Your task to perform on an android device: uninstall "ZOOM Cloud Meetings" Image 0: 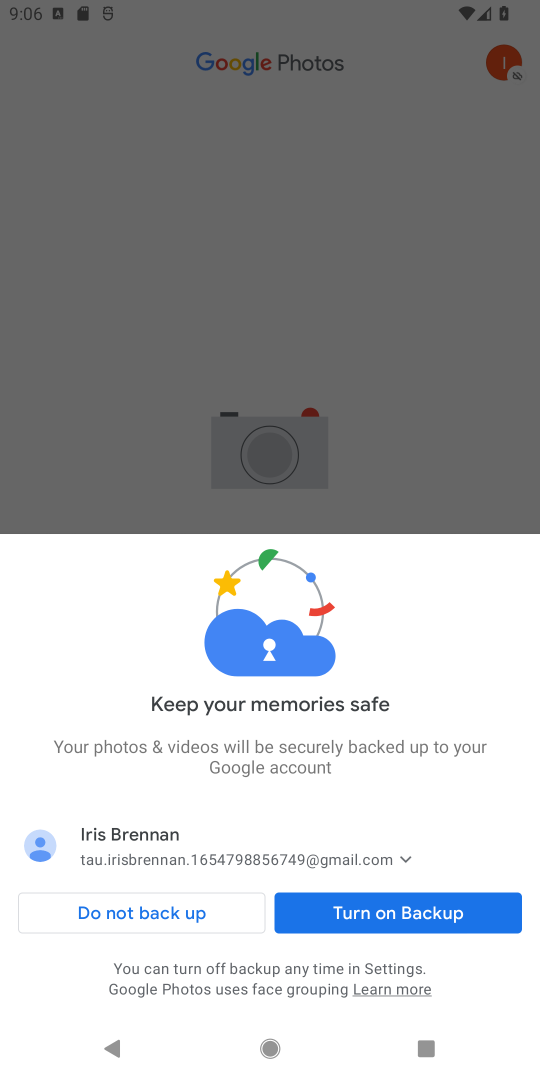
Step 0: press home button
Your task to perform on an android device: uninstall "ZOOM Cloud Meetings" Image 1: 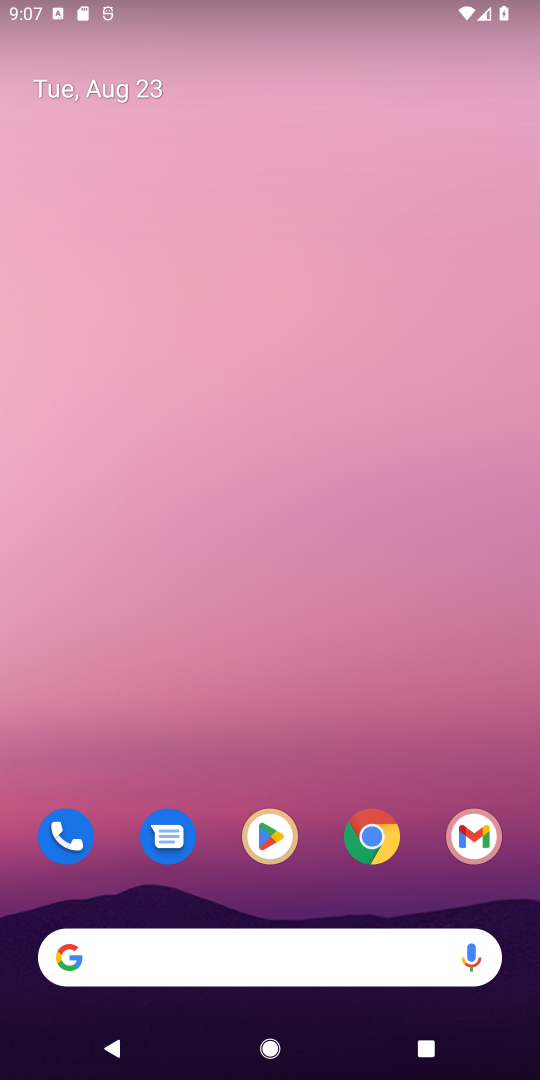
Step 1: click (275, 833)
Your task to perform on an android device: uninstall "ZOOM Cloud Meetings" Image 2: 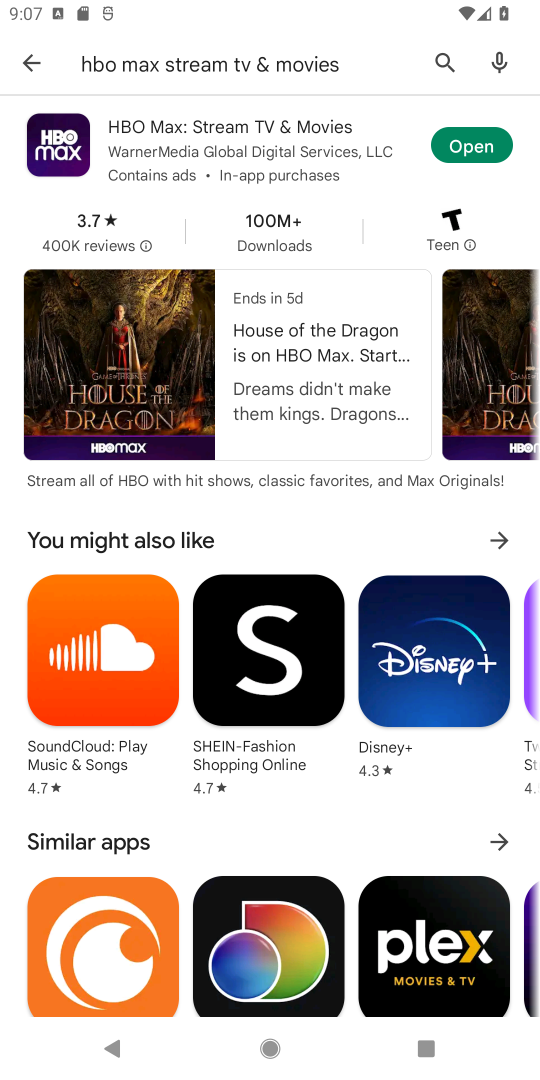
Step 2: click (445, 54)
Your task to perform on an android device: uninstall "ZOOM Cloud Meetings" Image 3: 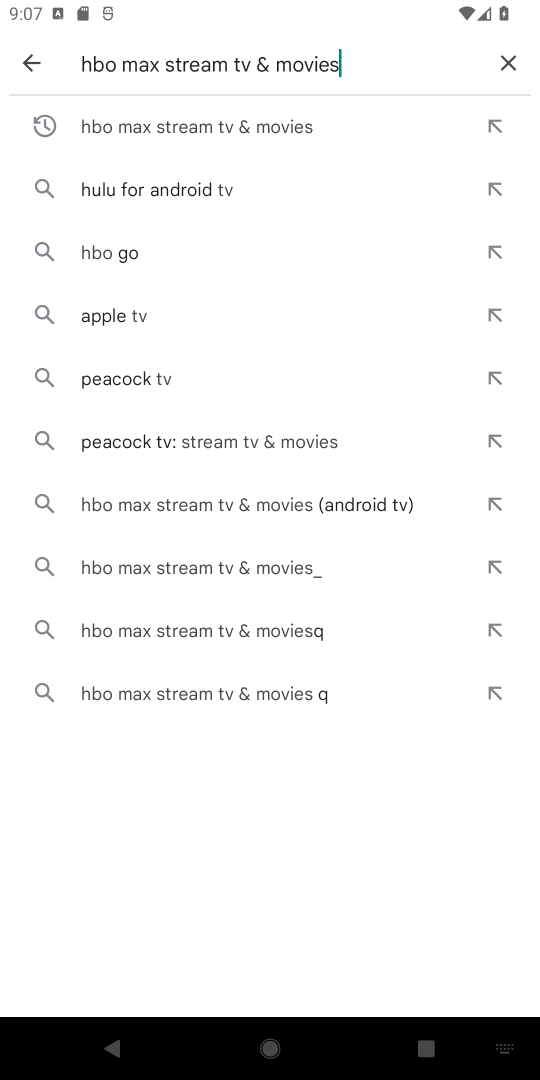
Step 3: click (506, 54)
Your task to perform on an android device: uninstall "ZOOM Cloud Meetings" Image 4: 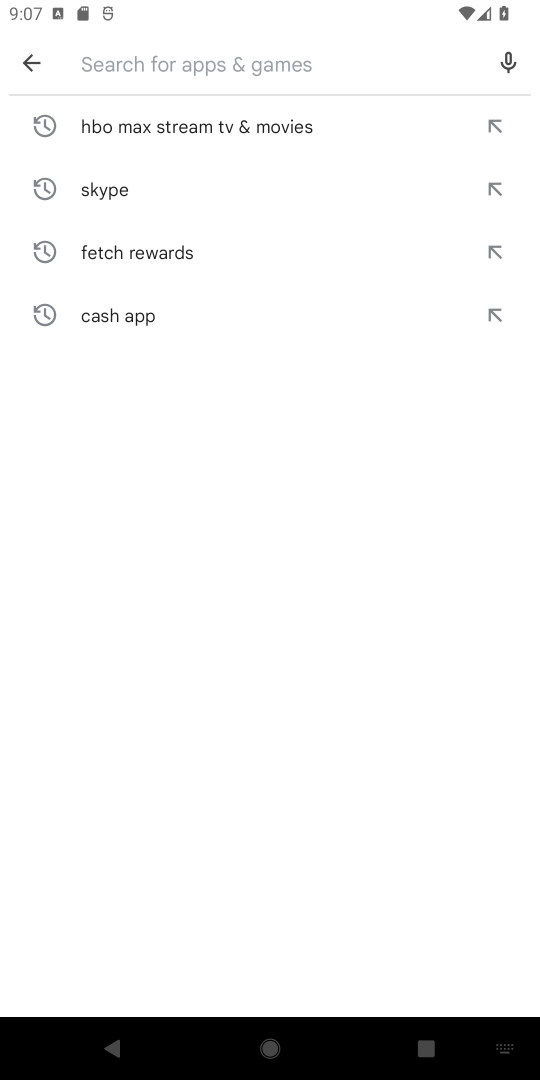
Step 4: type "ZOOM Cloud Meetings"
Your task to perform on an android device: uninstall "ZOOM Cloud Meetings" Image 5: 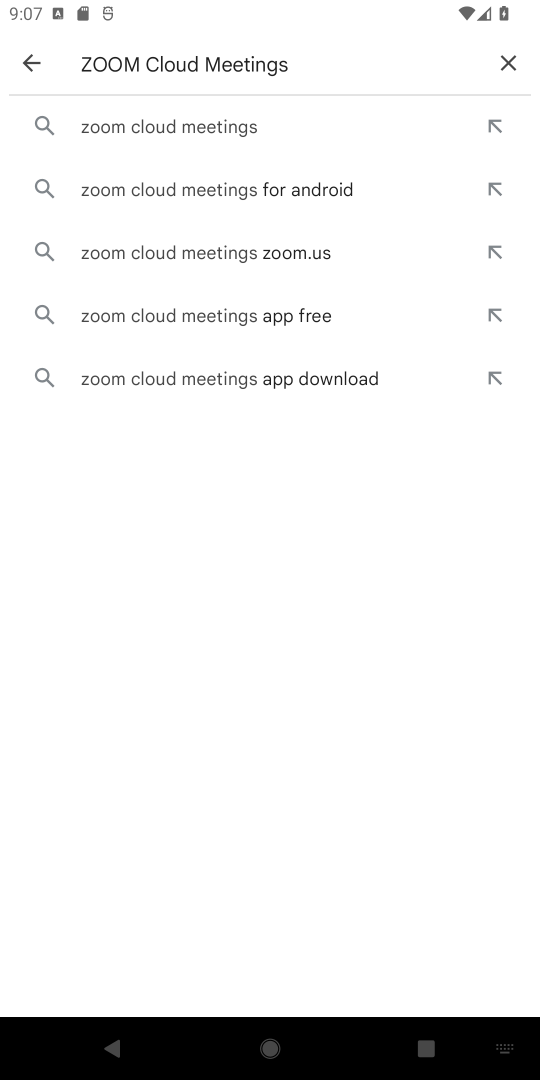
Step 5: click (185, 123)
Your task to perform on an android device: uninstall "ZOOM Cloud Meetings" Image 6: 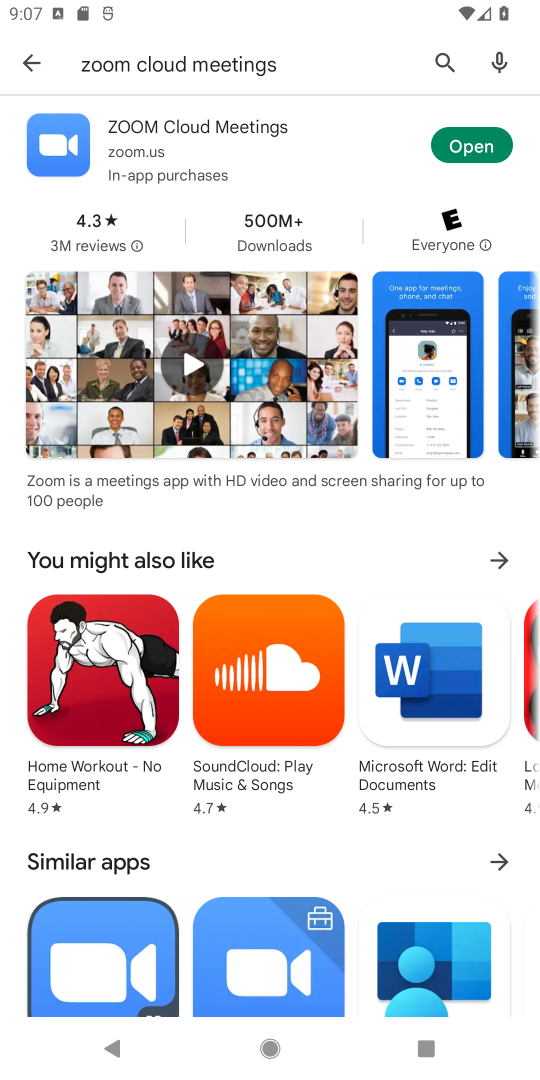
Step 6: click (134, 130)
Your task to perform on an android device: uninstall "ZOOM Cloud Meetings" Image 7: 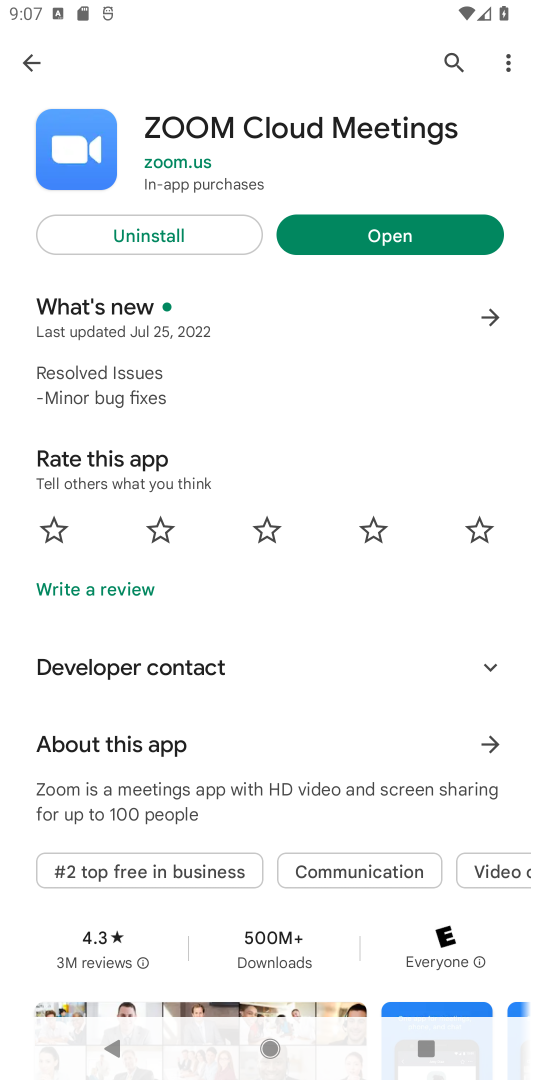
Step 7: click (152, 234)
Your task to perform on an android device: uninstall "ZOOM Cloud Meetings" Image 8: 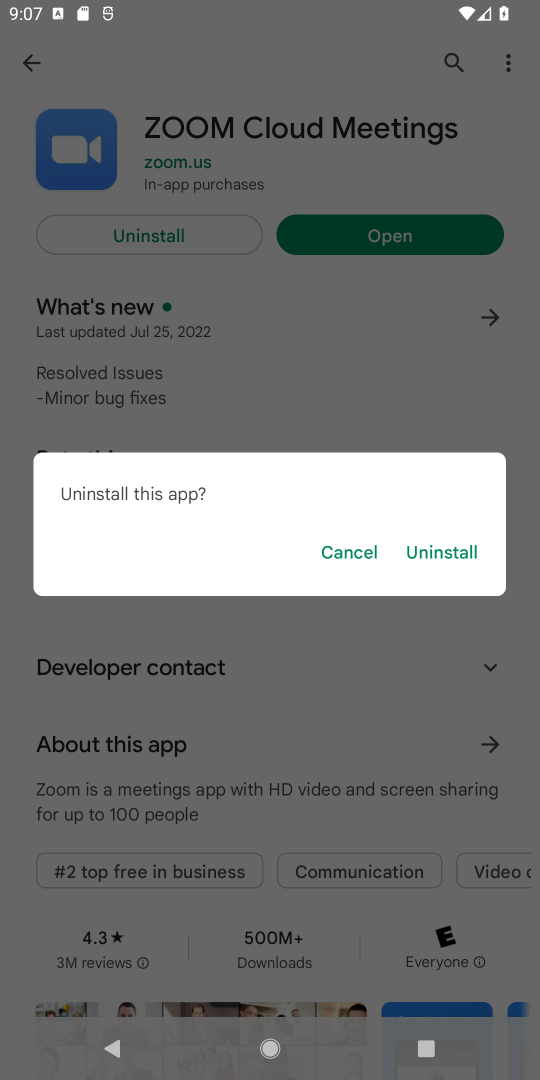
Step 8: click (441, 554)
Your task to perform on an android device: uninstall "ZOOM Cloud Meetings" Image 9: 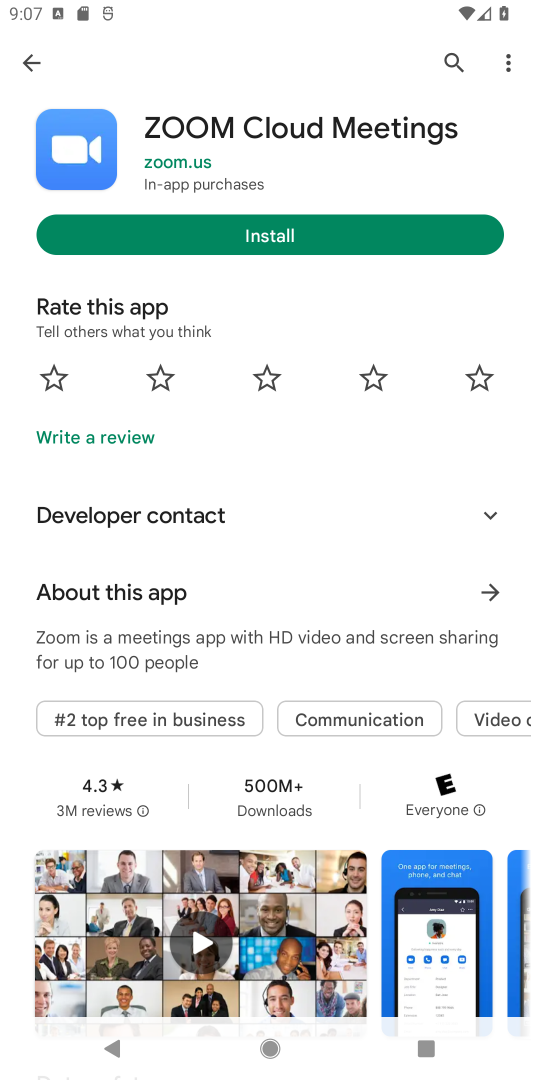
Step 9: task complete